Your task to perform on an android device: Open maps Image 0: 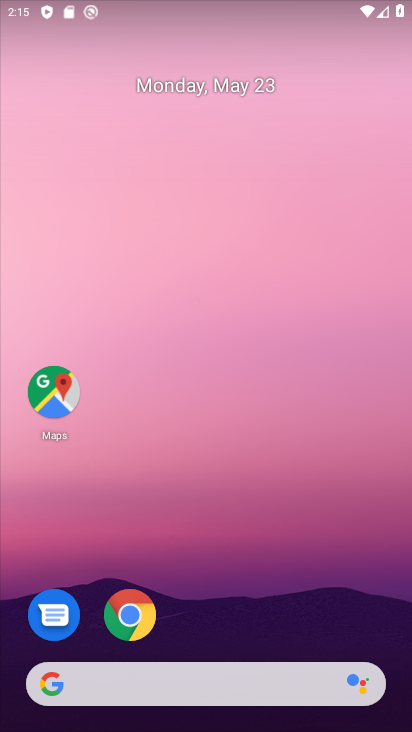
Step 0: click (52, 391)
Your task to perform on an android device: Open maps Image 1: 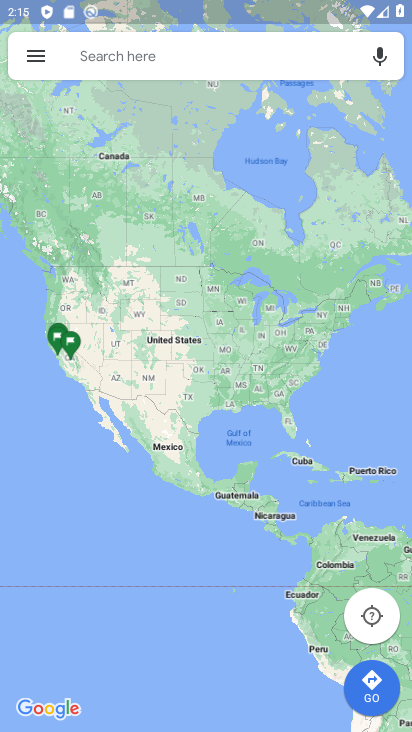
Step 1: task complete